Your task to perform on an android device: turn on notifications settings in the gmail app Image 0: 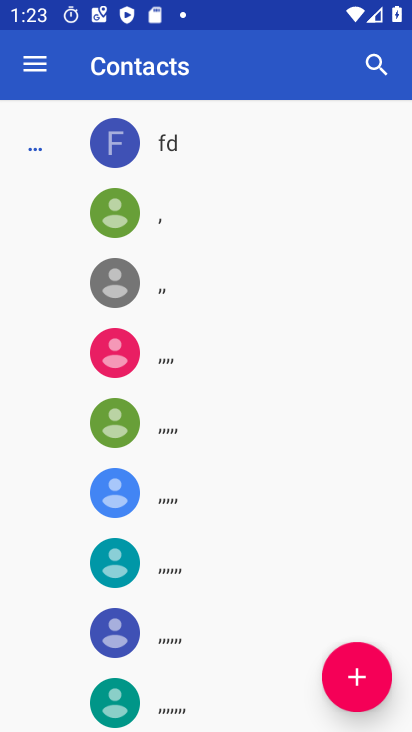
Step 0: press home button
Your task to perform on an android device: turn on notifications settings in the gmail app Image 1: 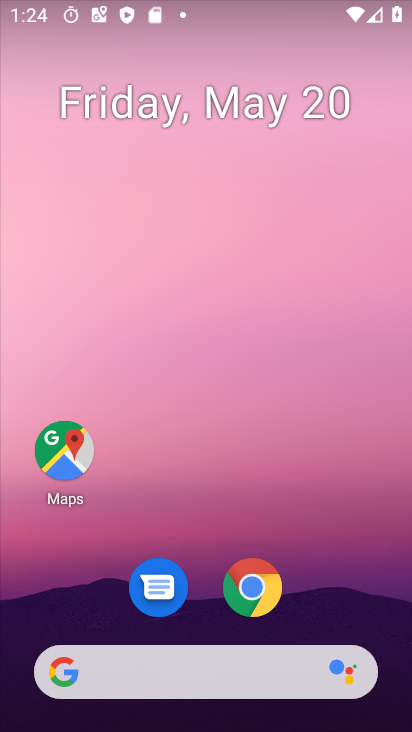
Step 1: drag from (359, 570) to (295, 148)
Your task to perform on an android device: turn on notifications settings in the gmail app Image 2: 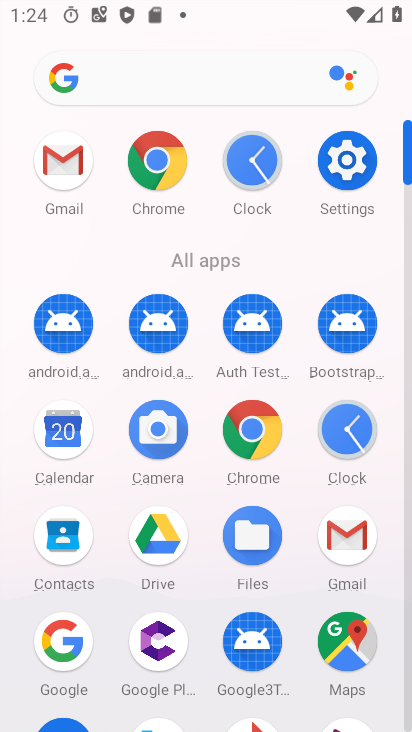
Step 2: click (63, 148)
Your task to perform on an android device: turn on notifications settings in the gmail app Image 3: 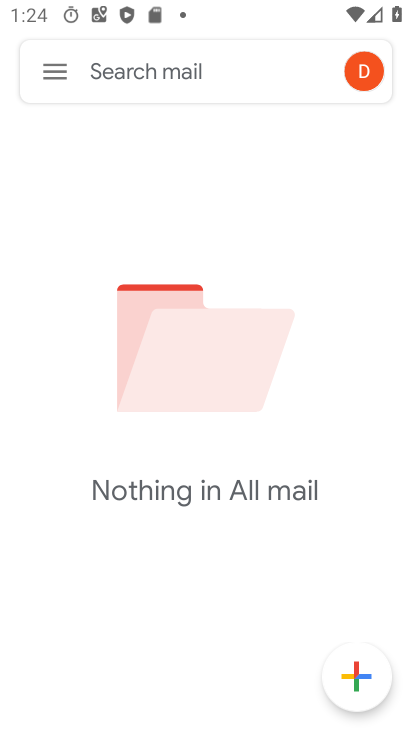
Step 3: click (65, 65)
Your task to perform on an android device: turn on notifications settings in the gmail app Image 4: 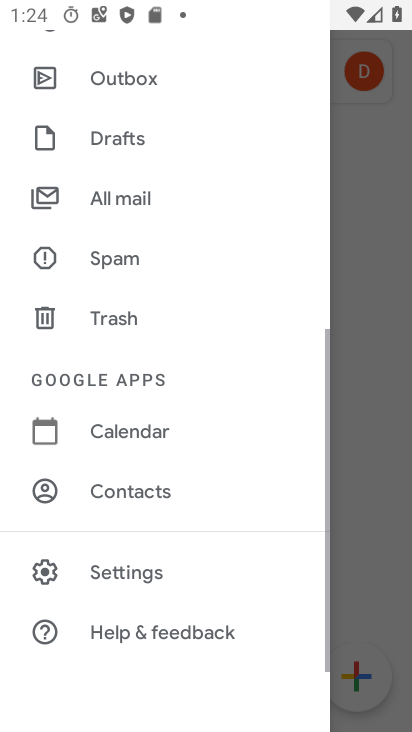
Step 4: drag from (145, 541) to (226, 187)
Your task to perform on an android device: turn on notifications settings in the gmail app Image 5: 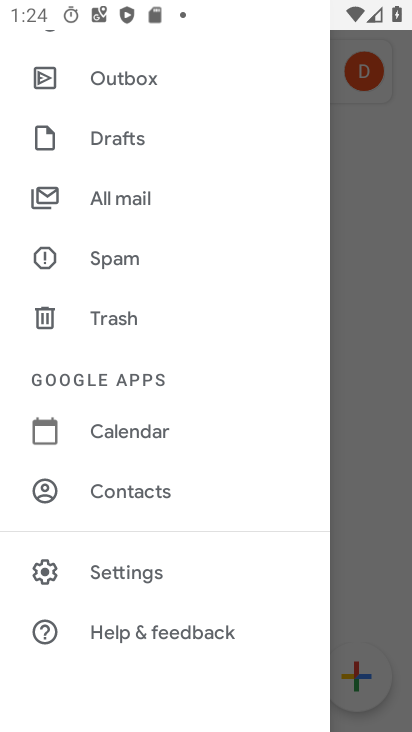
Step 5: click (122, 565)
Your task to perform on an android device: turn on notifications settings in the gmail app Image 6: 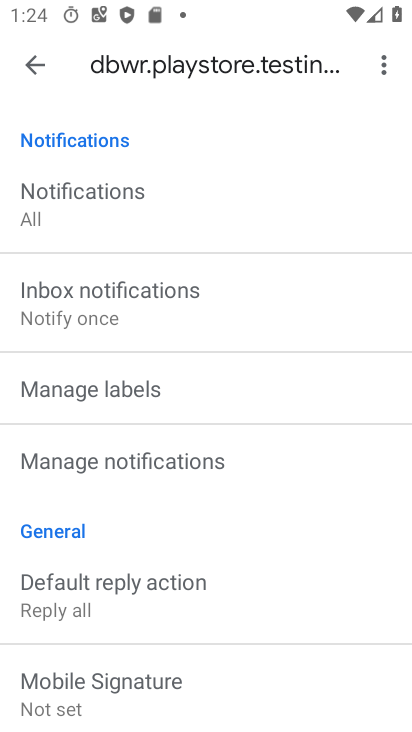
Step 6: click (121, 461)
Your task to perform on an android device: turn on notifications settings in the gmail app Image 7: 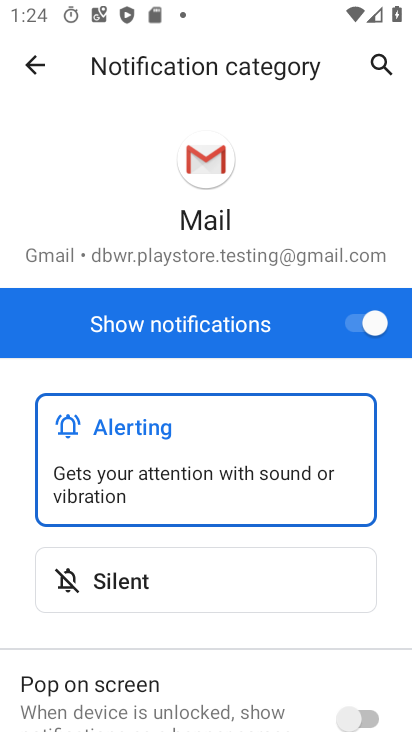
Step 7: task complete